Your task to perform on an android device: Search for flights from NYC to Buenos aires Image 0: 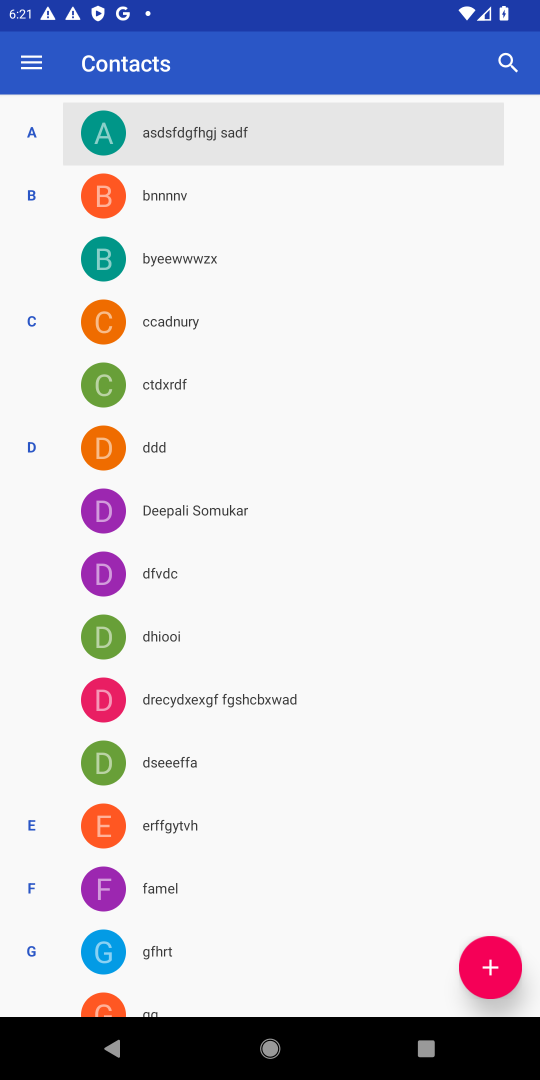
Step 0: press home button
Your task to perform on an android device: Search for flights from NYC to Buenos aires Image 1: 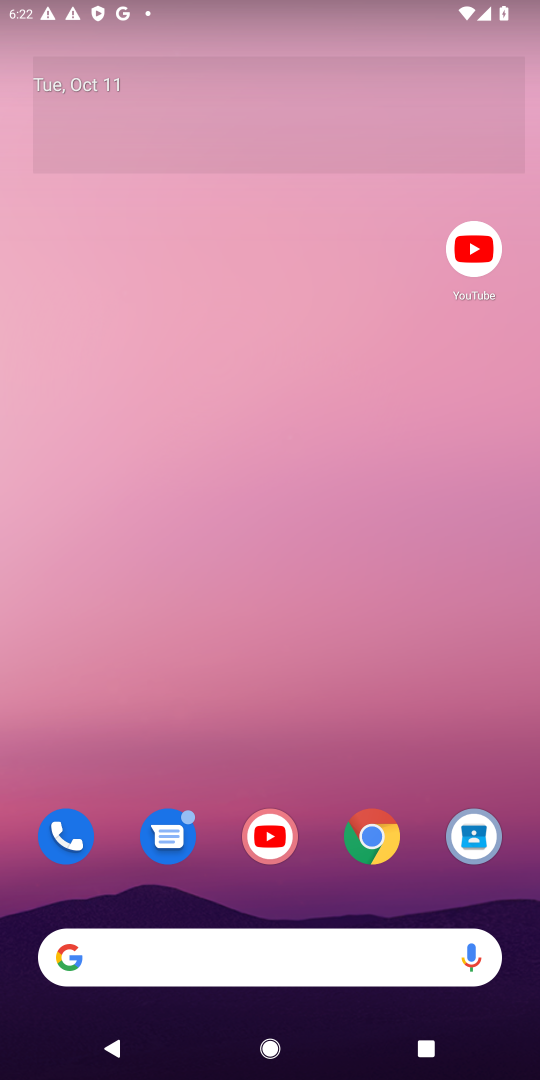
Step 1: click (378, 836)
Your task to perform on an android device: Search for flights from NYC to Buenos aires Image 2: 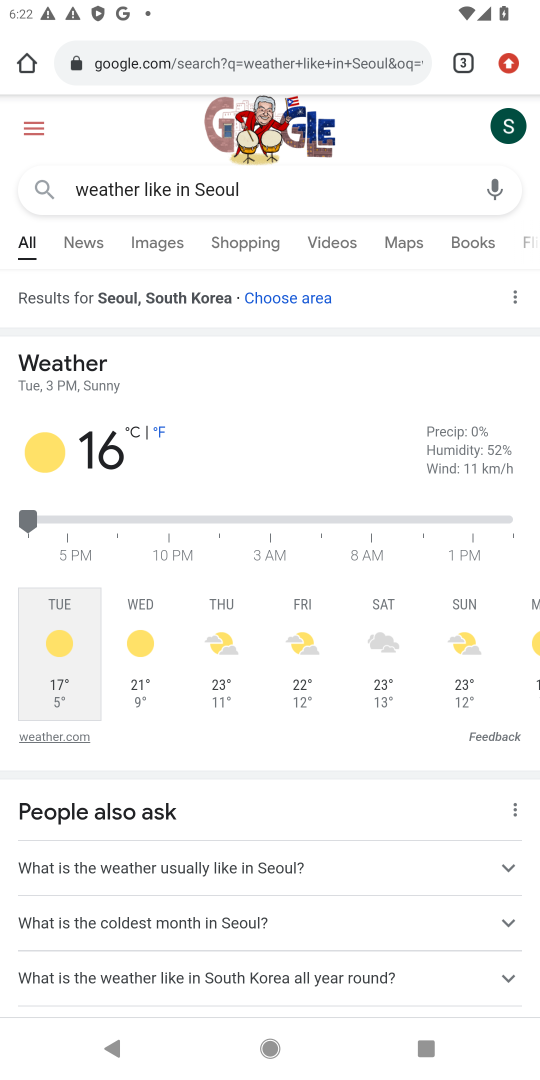
Step 2: click (357, 60)
Your task to perform on an android device: Search for flights from NYC to Buenos aires Image 3: 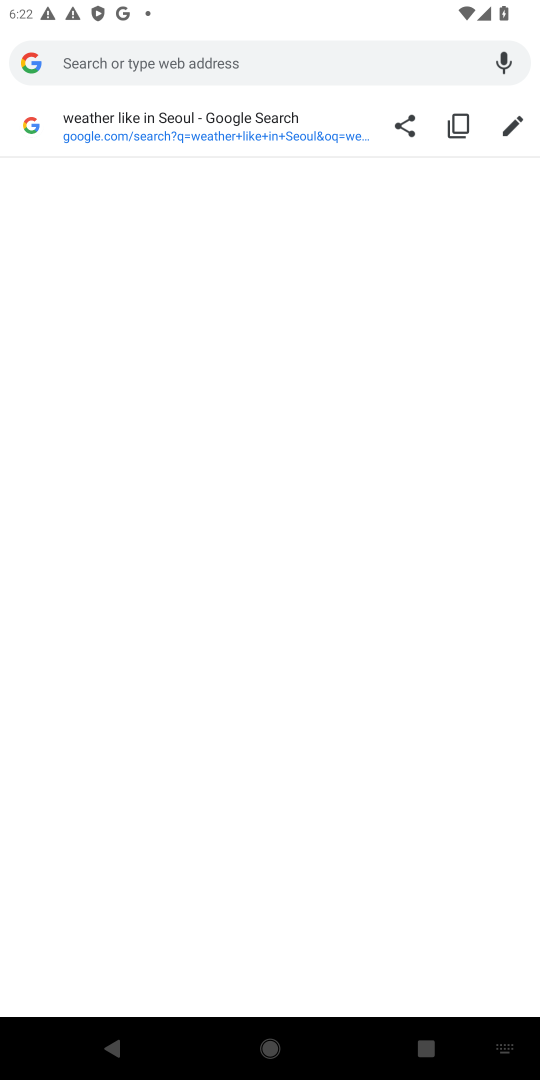
Step 3: type "flights from NYC to Buenos aires"
Your task to perform on an android device: Search for flights from NYC to Buenos aires Image 4: 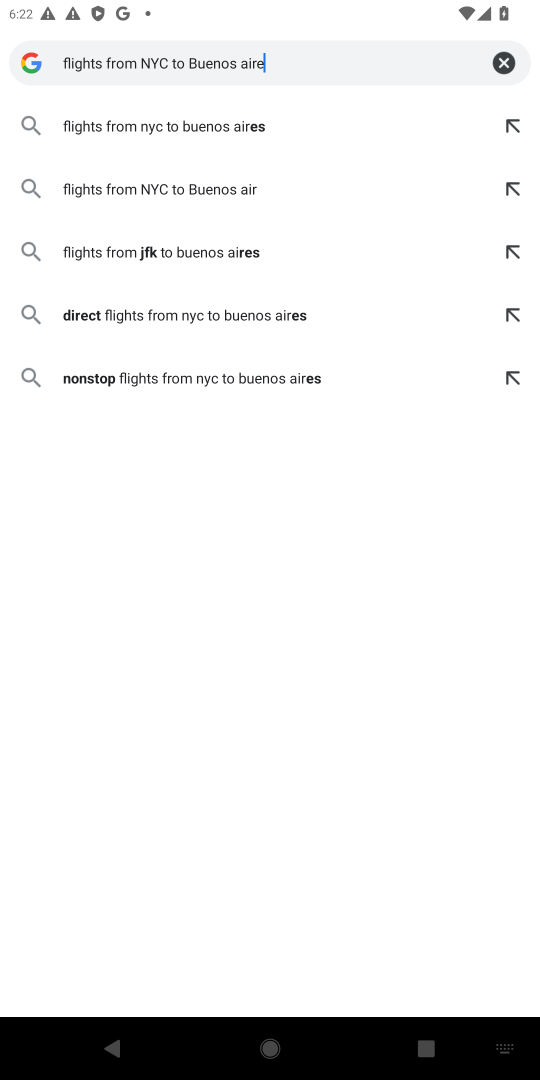
Step 4: press enter
Your task to perform on an android device: Search for flights from NYC to Buenos aires Image 5: 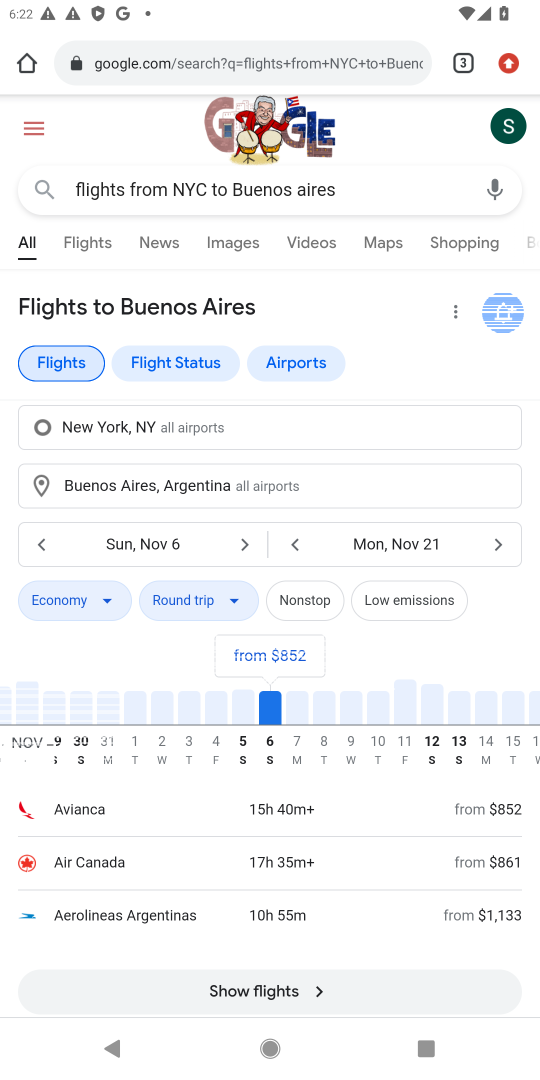
Step 5: drag from (158, 818) to (480, 134)
Your task to perform on an android device: Search for flights from NYC to Buenos aires Image 6: 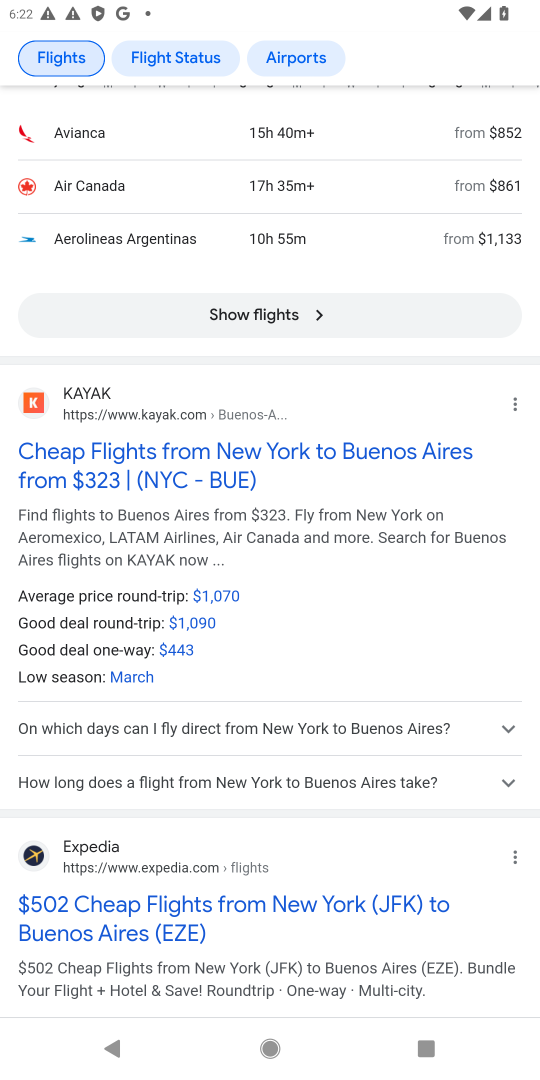
Step 6: click (267, 314)
Your task to perform on an android device: Search for flights from NYC to Buenos aires Image 7: 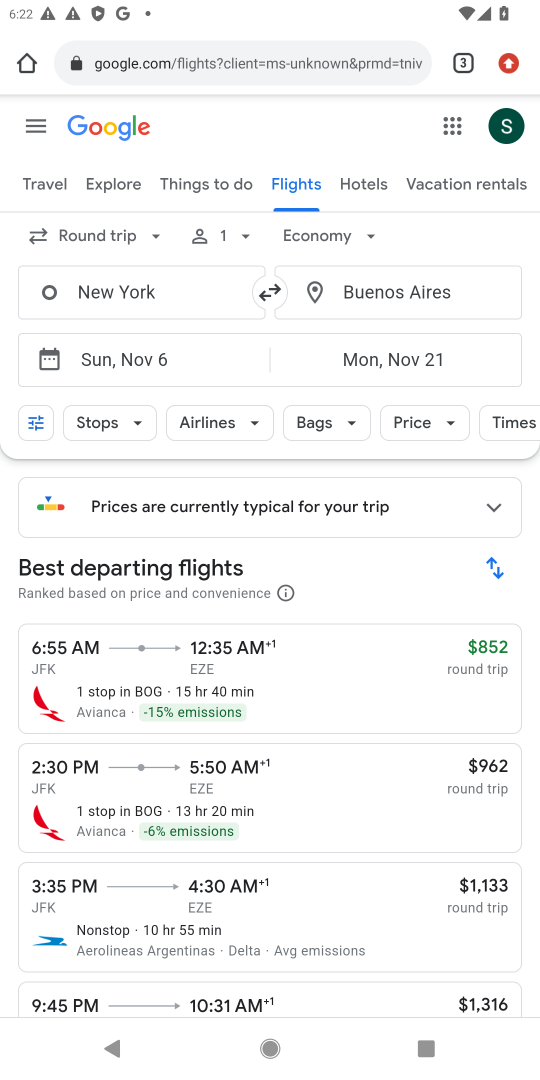
Step 7: task complete